Your task to perform on an android device: change keyboard looks Image 0: 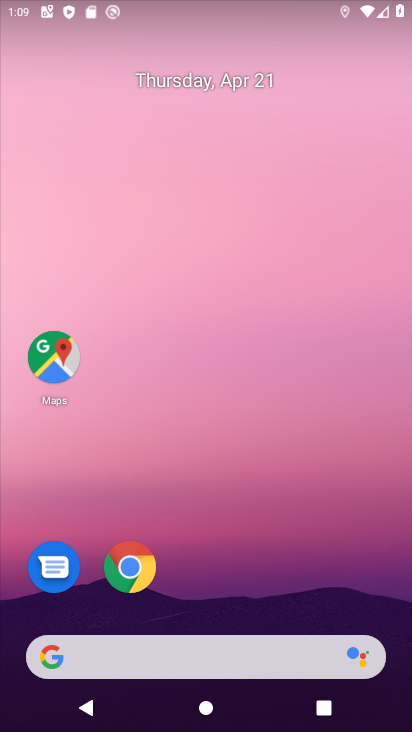
Step 0: drag from (231, 506) to (300, 19)
Your task to perform on an android device: change keyboard looks Image 1: 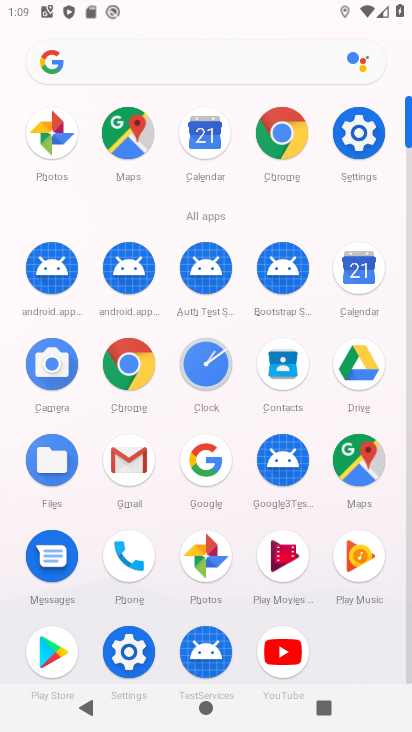
Step 1: click (354, 136)
Your task to perform on an android device: change keyboard looks Image 2: 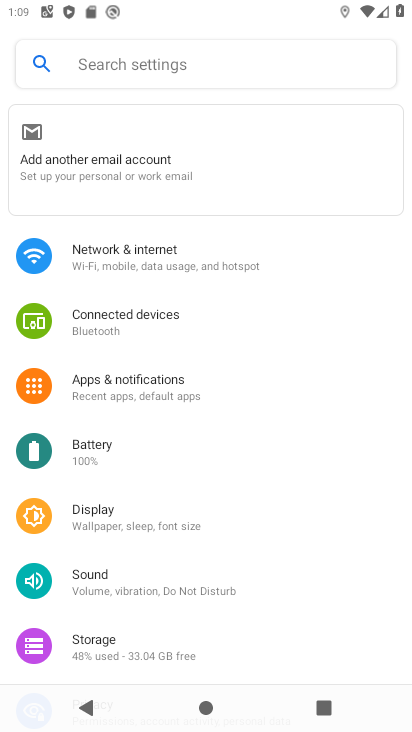
Step 2: drag from (166, 631) to (250, 46)
Your task to perform on an android device: change keyboard looks Image 3: 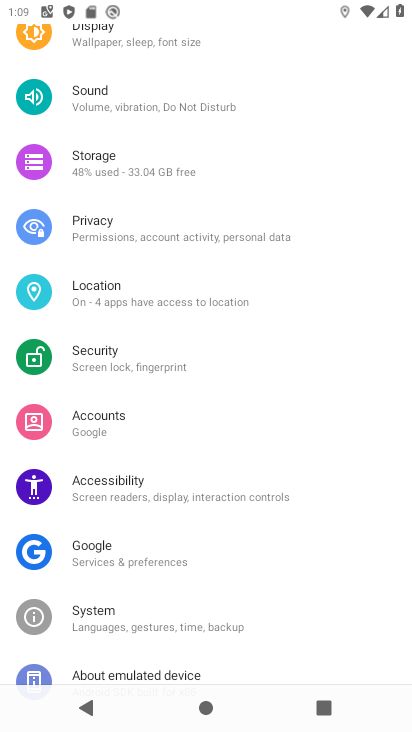
Step 3: drag from (144, 589) to (278, 72)
Your task to perform on an android device: change keyboard looks Image 4: 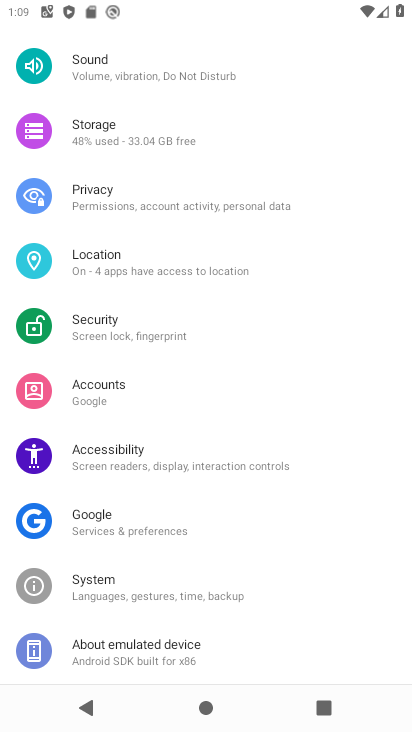
Step 4: click (188, 589)
Your task to perform on an android device: change keyboard looks Image 5: 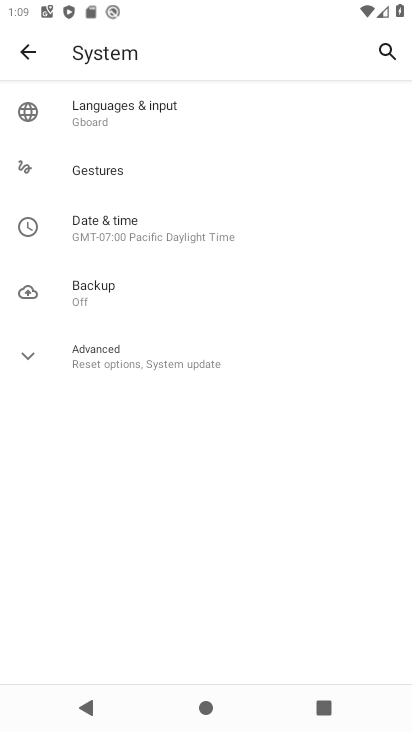
Step 5: click (115, 122)
Your task to perform on an android device: change keyboard looks Image 6: 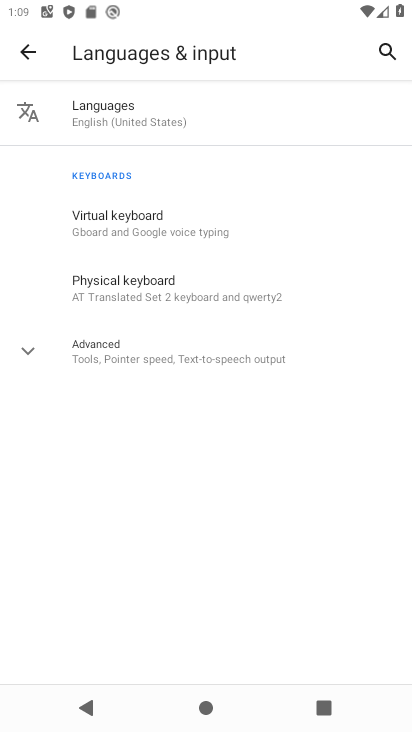
Step 6: click (166, 217)
Your task to perform on an android device: change keyboard looks Image 7: 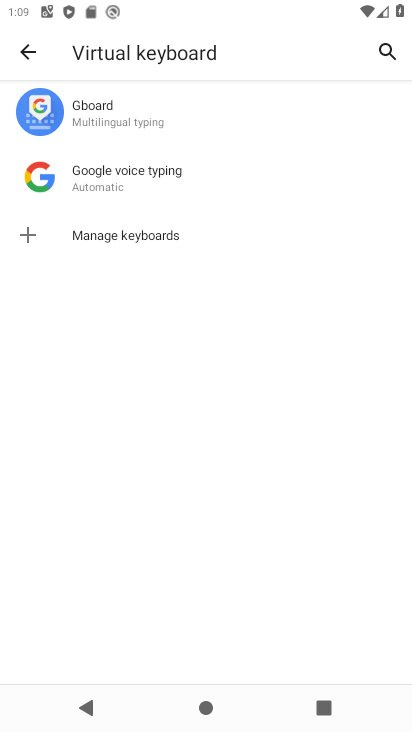
Step 7: click (132, 112)
Your task to perform on an android device: change keyboard looks Image 8: 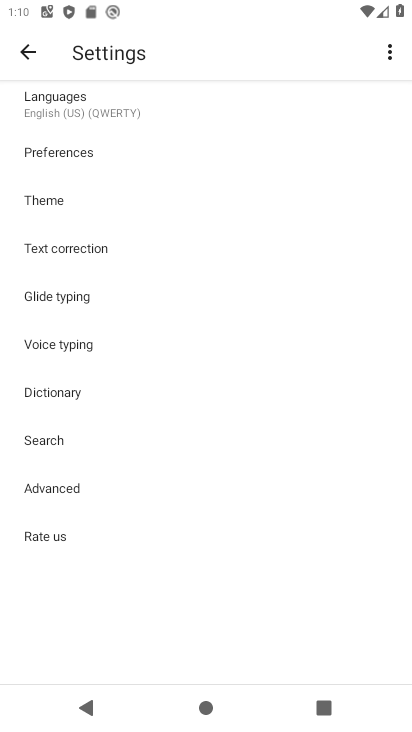
Step 8: click (74, 202)
Your task to perform on an android device: change keyboard looks Image 9: 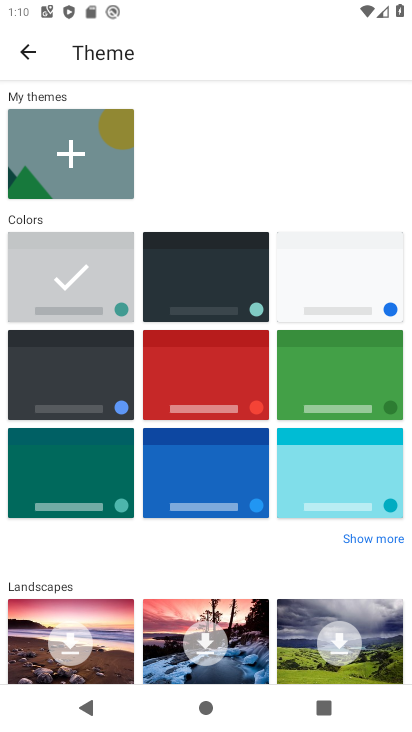
Step 9: click (336, 385)
Your task to perform on an android device: change keyboard looks Image 10: 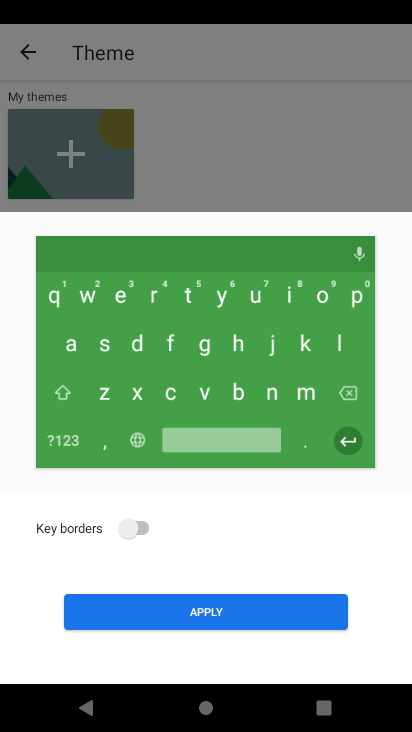
Step 10: click (216, 603)
Your task to perform on an android device: change keyboard looks Image 11: 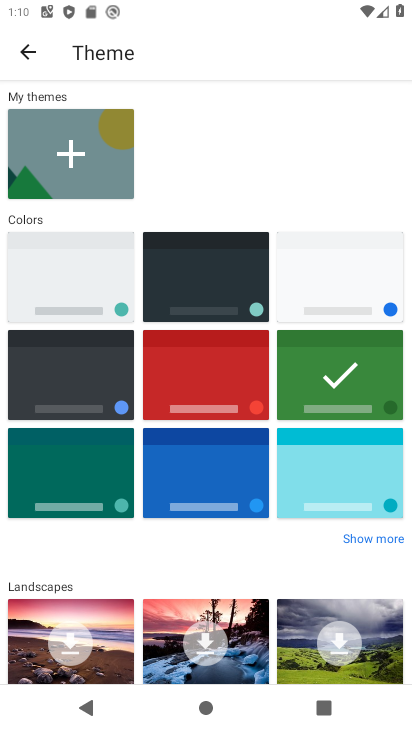
Step 11: task complete